Your task to perform on an android device: allow cookies in the chrome app Image 0: 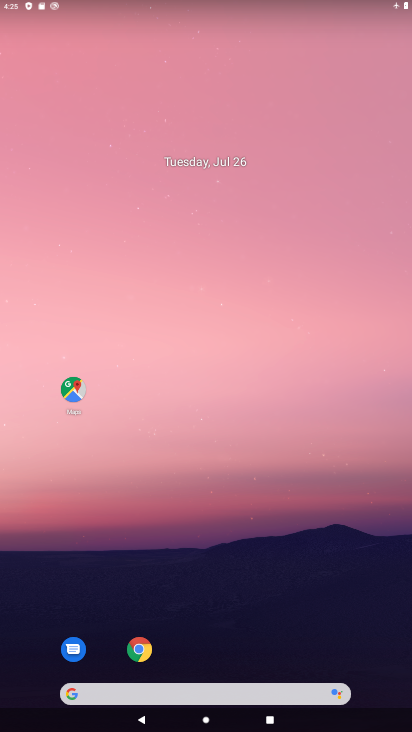
Step 0: click (151, 655)
Your task to perform on an android device: allow cookies in the chrome app Image 1: 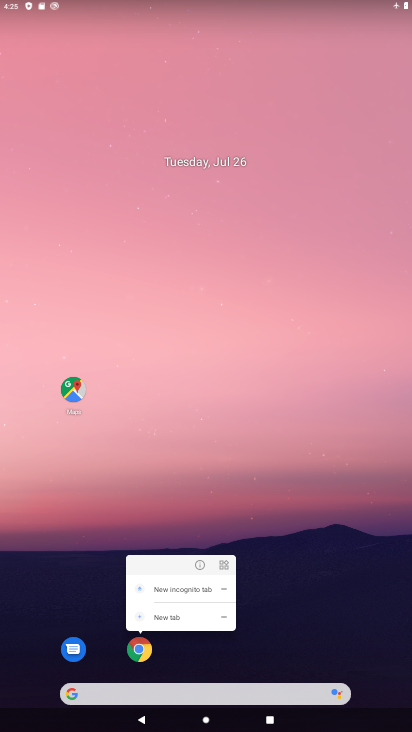
Step 1: click (127, 660)
Your task to perform on an android device: allow cookies in the chrome app Image 2: 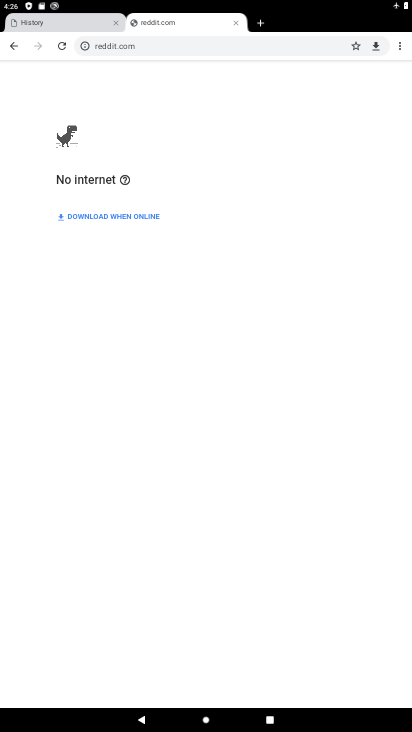
Step 2: click (391, 43)
Your task to perform on an android device: allow cookies in the chrome app Image 3: 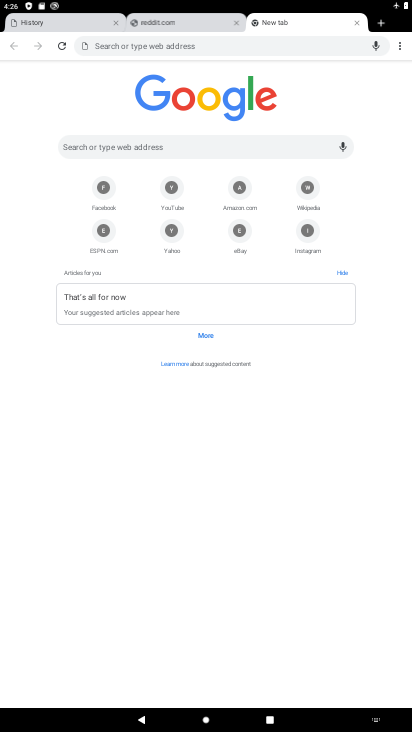
Step 3: drag from (397, 43) to (319, 205)
Your task to perform on an android device: allow cookies in the chrome app Image 4: 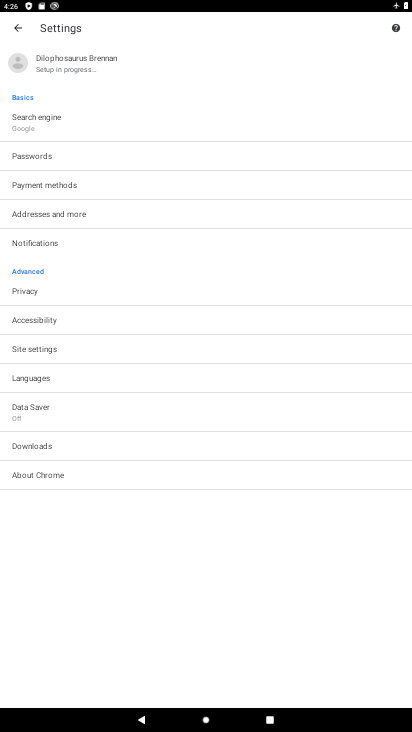
Step 4: click (26, 352)
Your task to perform on an android device: allow cookies in the chrome app Image 5: 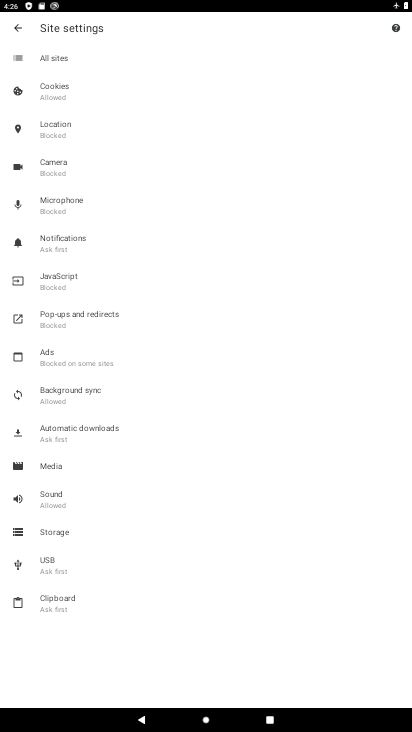
Step 5: click (47, 90)
Your task to perform on an android device: allow cookies in the chrome app Image 6: 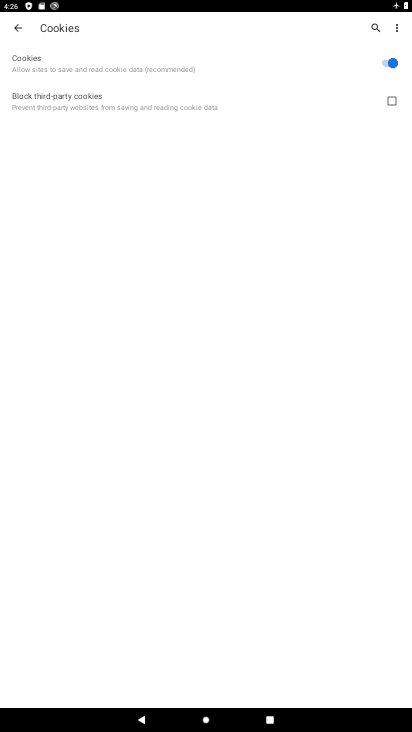
Step 6: task complete